Your task to perform on an android device: change the clock display to digital Image 0: 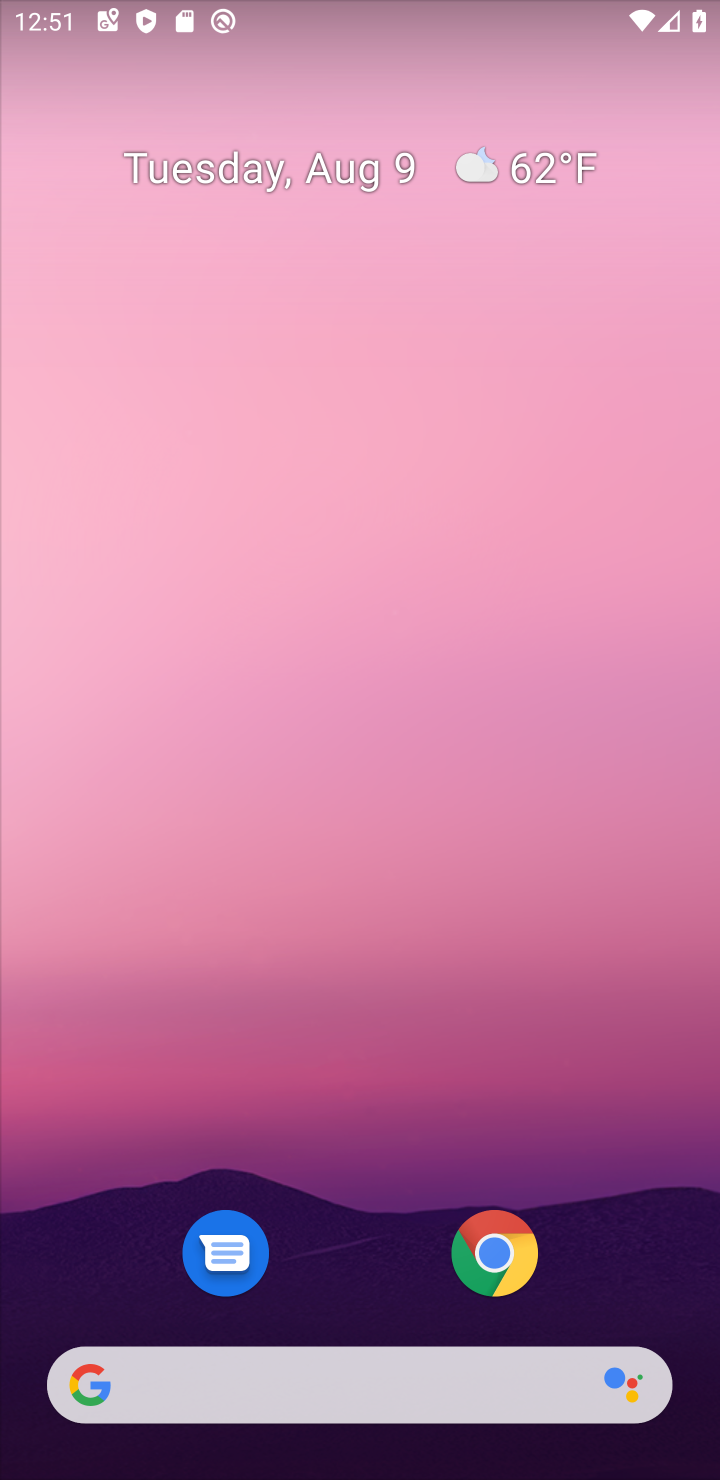
Step 0: drag from (539, 966) to (344, 96)
Your task to perform on an android device: change the clock display to digital Image 1: 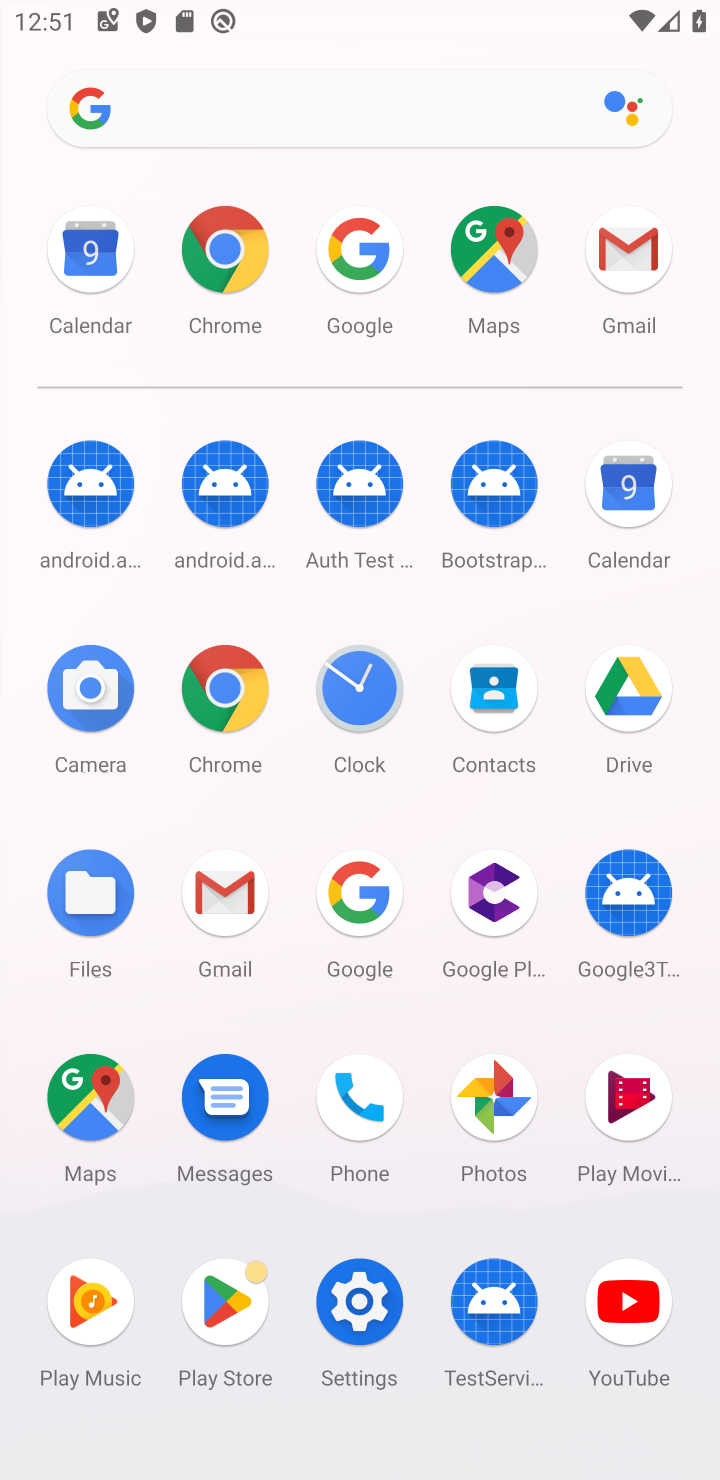
Step 1: click (362, 698)
Your task to perform on an android device: change the clock display to digital Image 2: 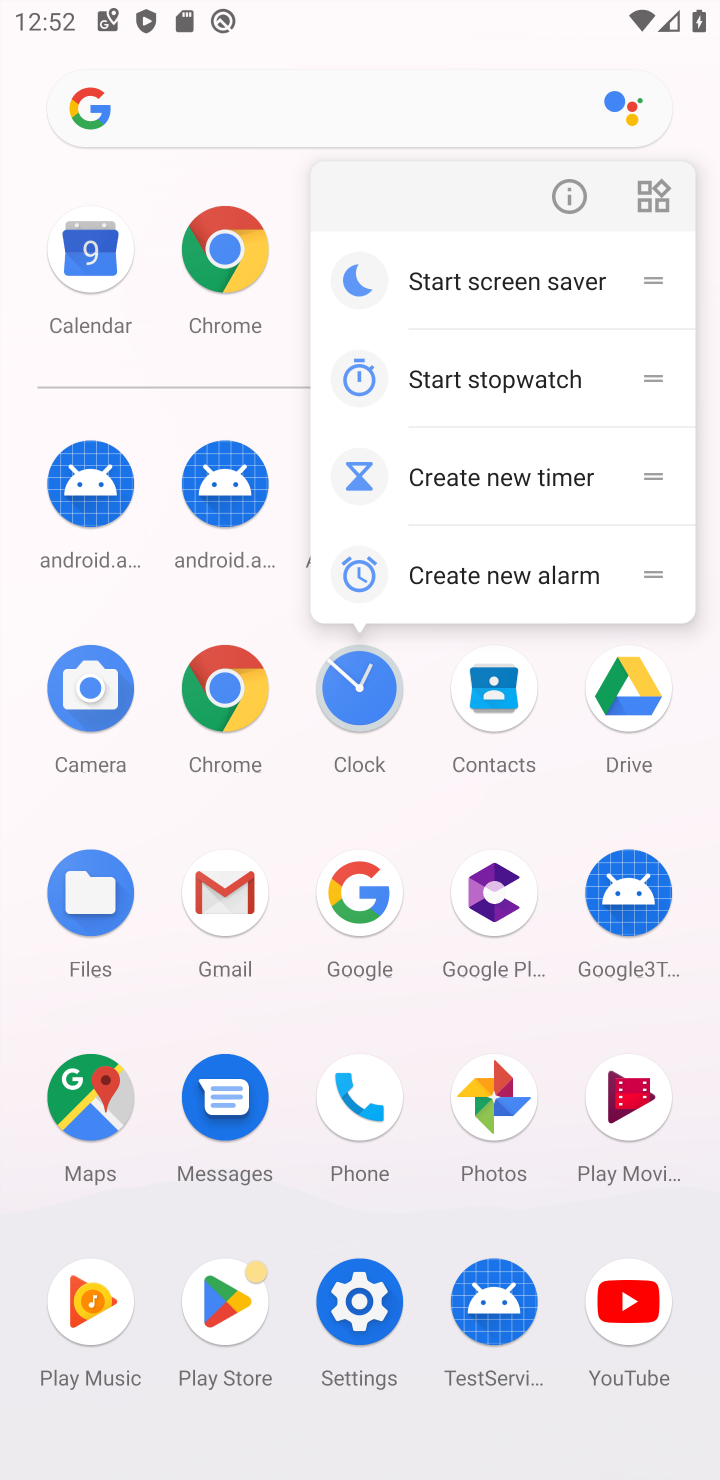
Step 2: click (342, 720)
Your task to perform on an android device: change the clock display to digital Image 3: 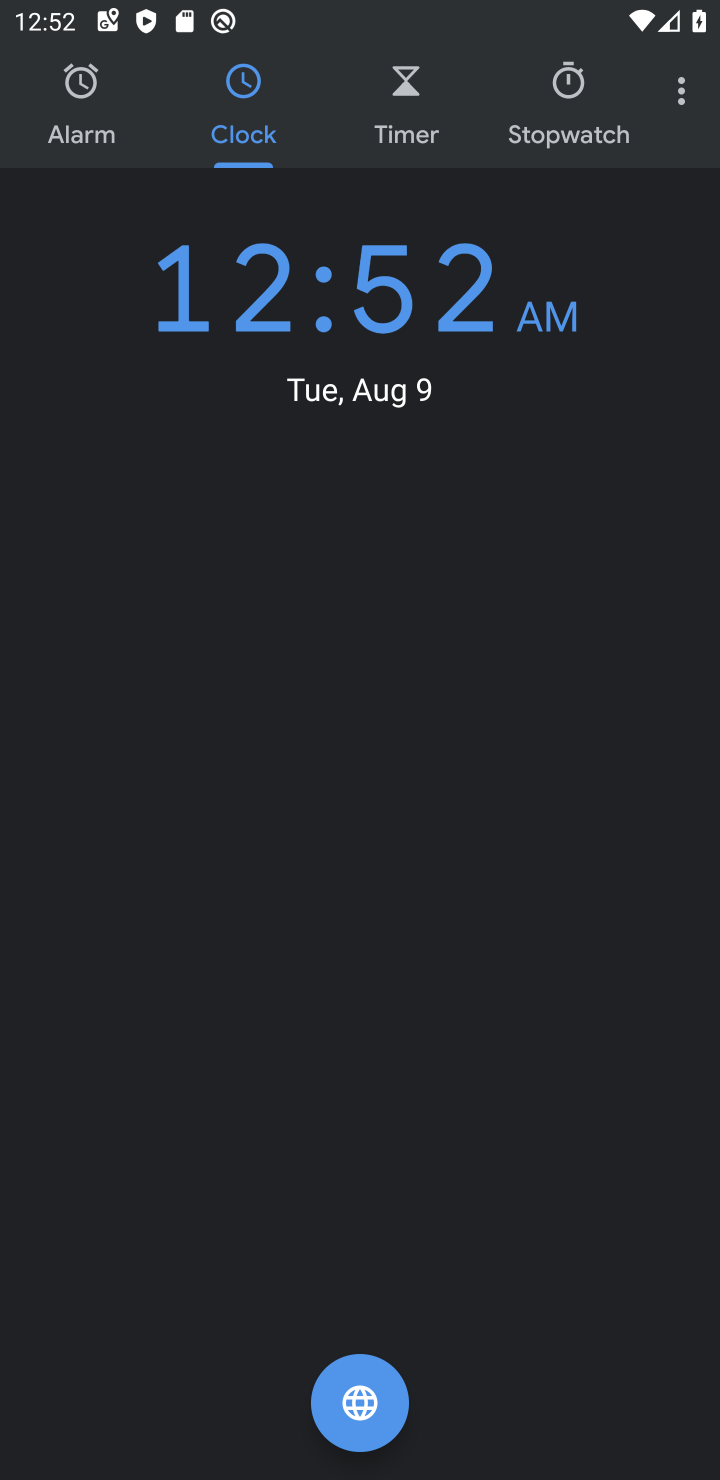
Step 3: click (688, 83)
Your task to perform on an android device: change the clock display to digital Image 4: 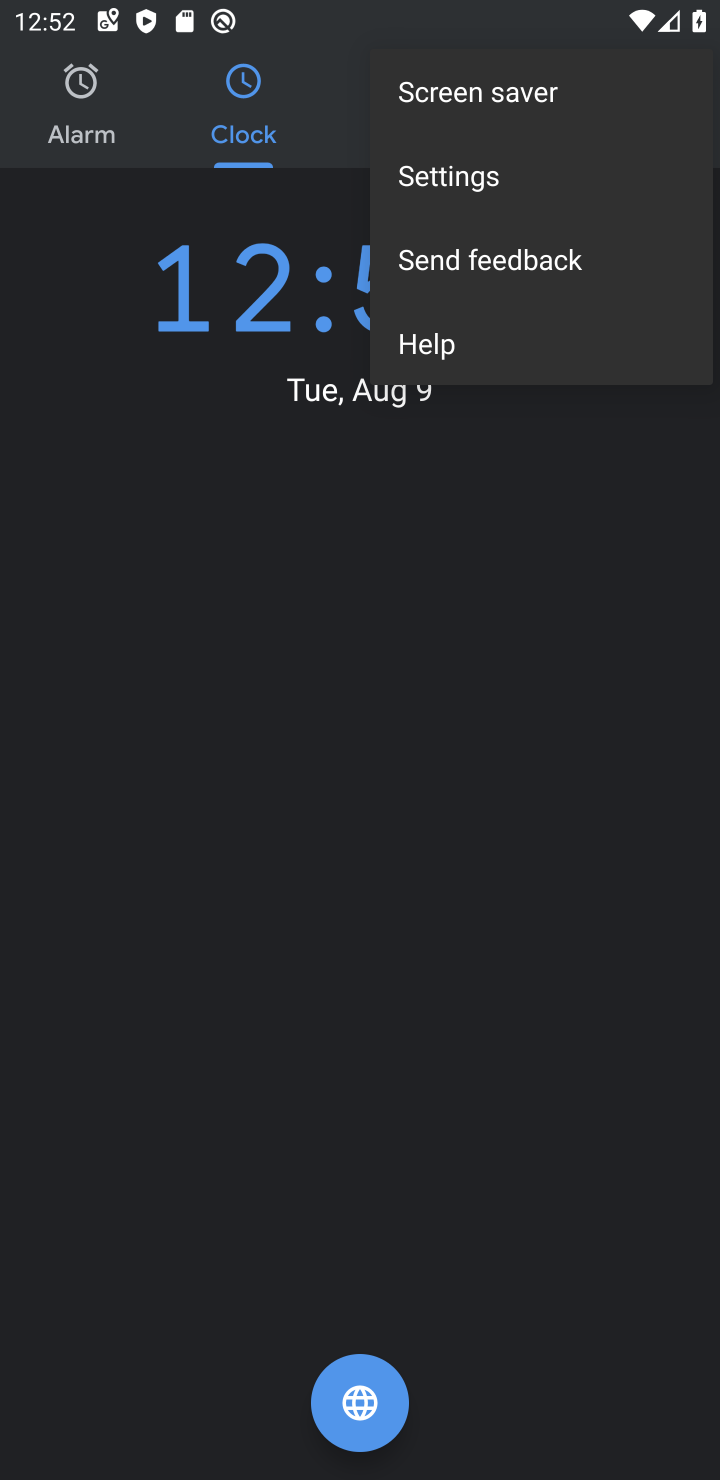
Step 4: click (468, 165)
Your task to perform on an android device: change the clock display to digital Image 5: 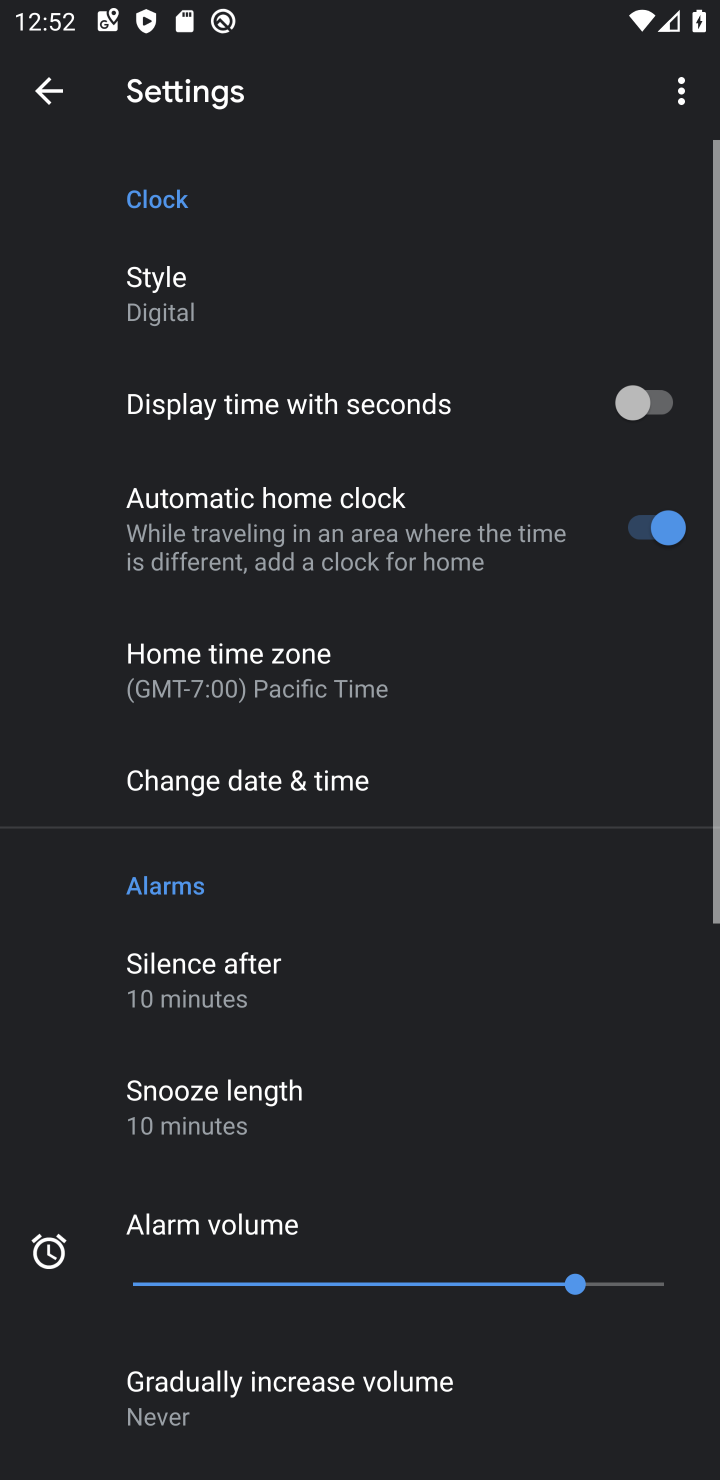
Step 5: click (250, 298)
Your task to perform on an android device: change the clock display to digital Image 6: 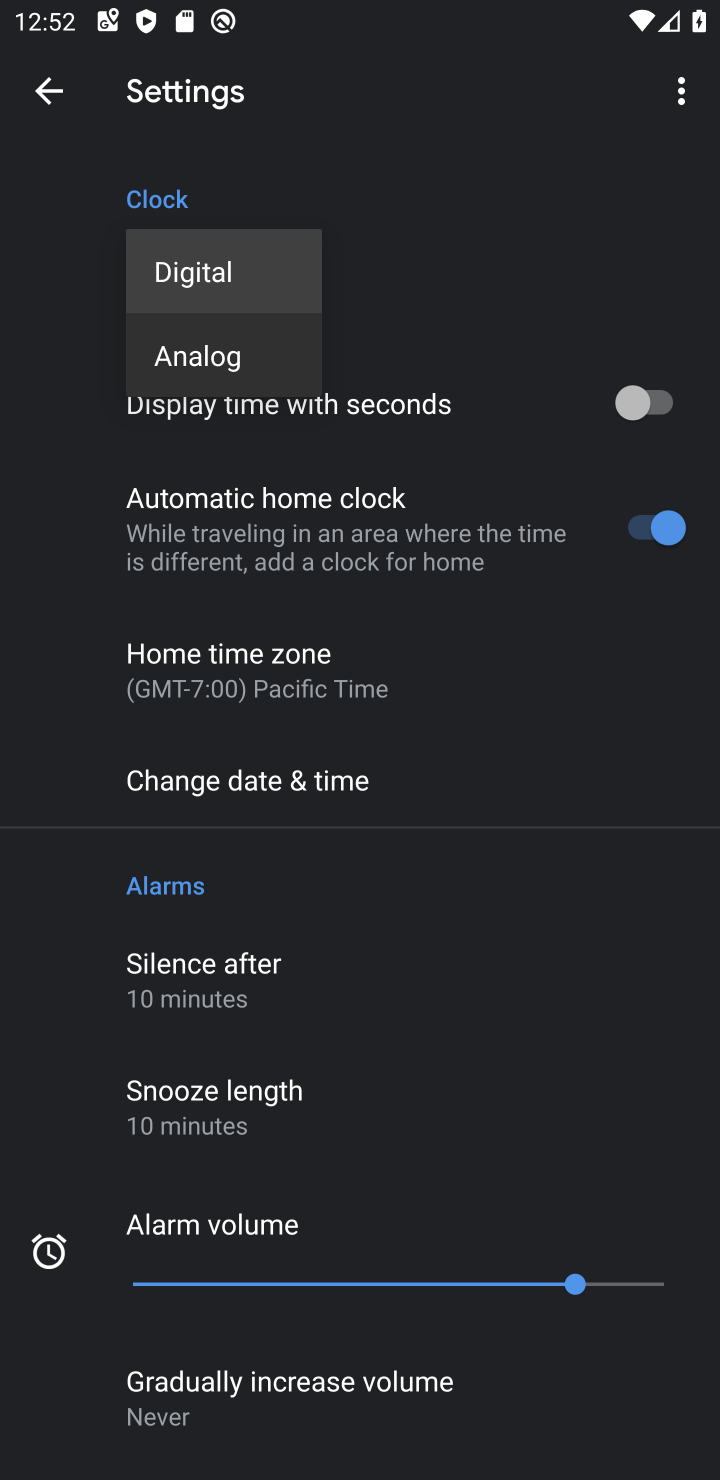
Step 6: click (236, 292)
Your task to perform on an android device: change the clock display to digital Image 7: 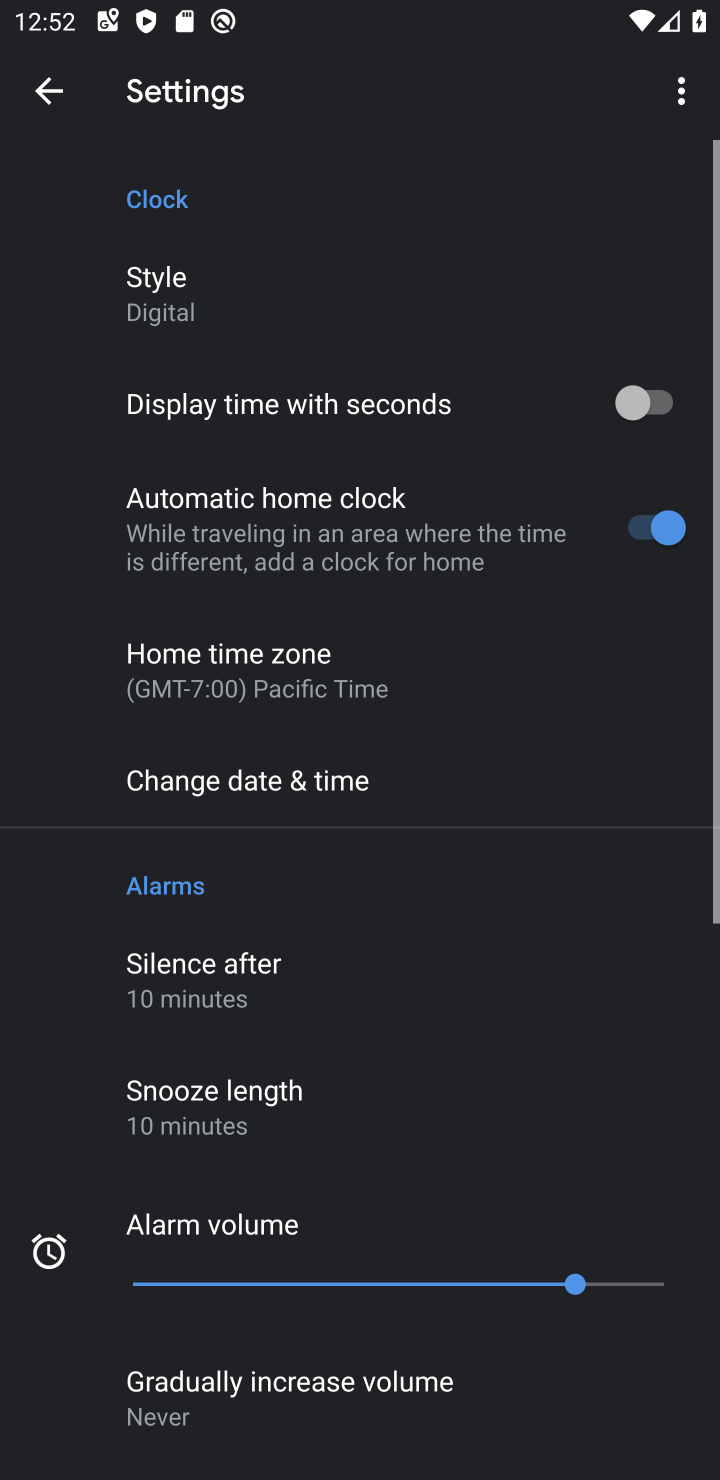
Step 7: task complete